Your task to perform on an android device: Open the Play Movies app and select the watchlist tab. Image 0: 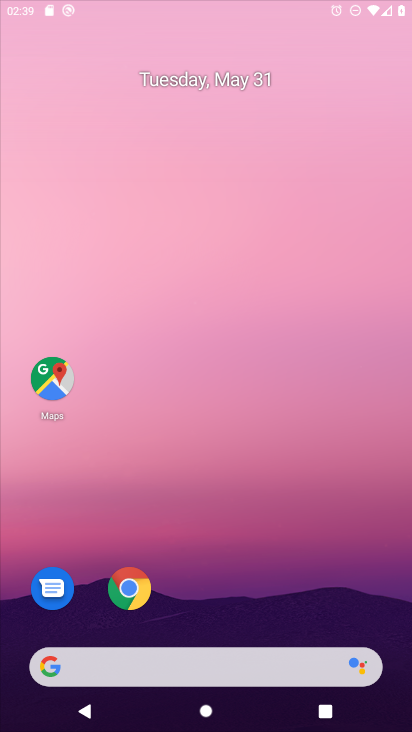
Step 0: drag from (334, 695) to (377, 4)
Your task to perform on an android device: Open the Play Movies app and select the watchlist tab. Image 1: 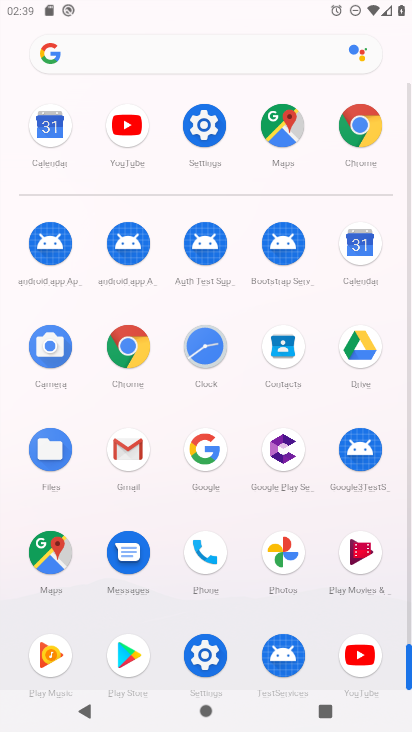
Step 1: click (59, 551)
Your task to perform on an android device: Open the Play Movies app and select the watchlist tab. Image 2: 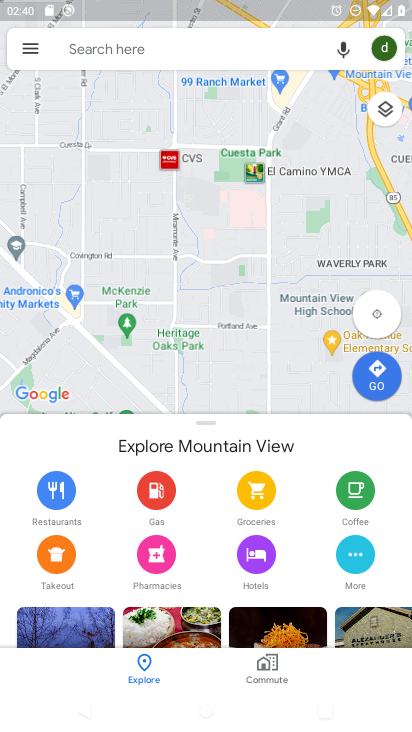
Step 2: task complete